Your task to perform on an android device: Open the Play Movies app and select the watchlist tab. Image 0: 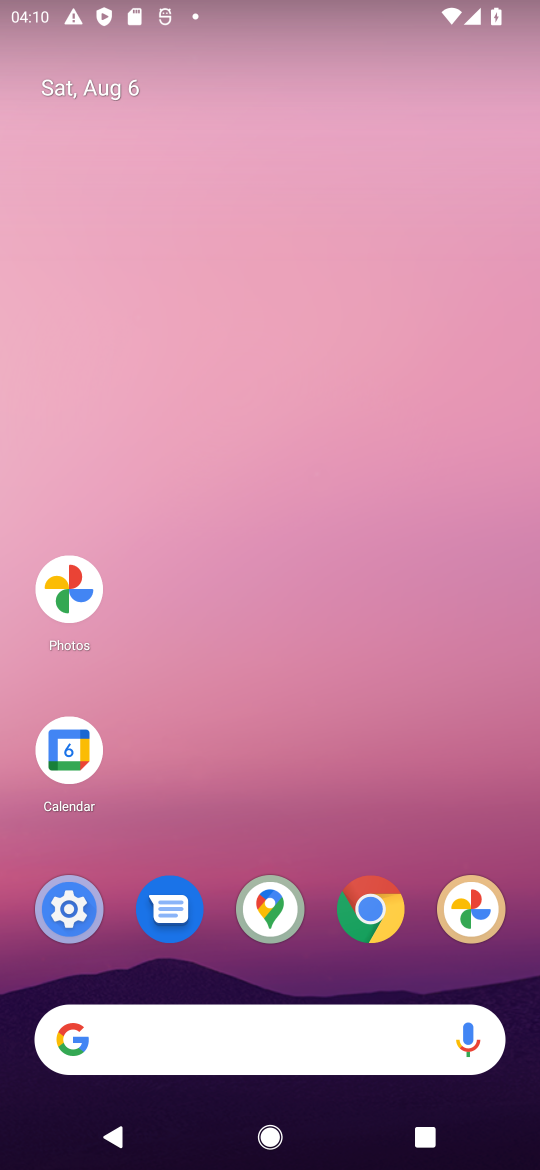
Step 0: drag from (243, 832) to (234, 74)
Your task to perform on an android device: Open the Play Movies app and select the watchlist tab. Image 1: 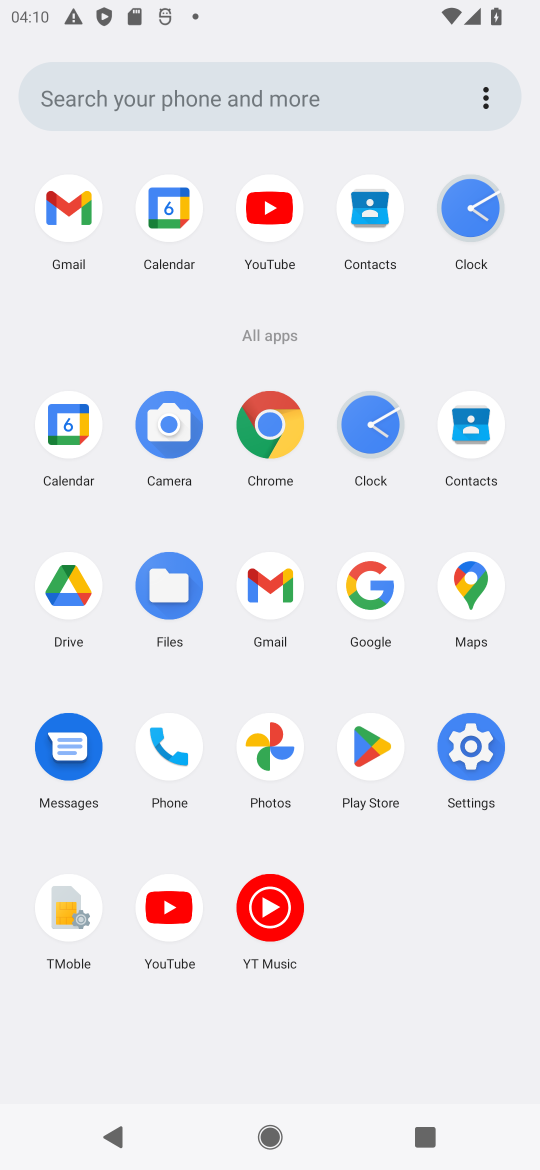
Step 1: drag from (376, 316) to (395, 753)
Your task to perform on an android device: Open the Play Movies app and select the watchlist tab. Image 2: 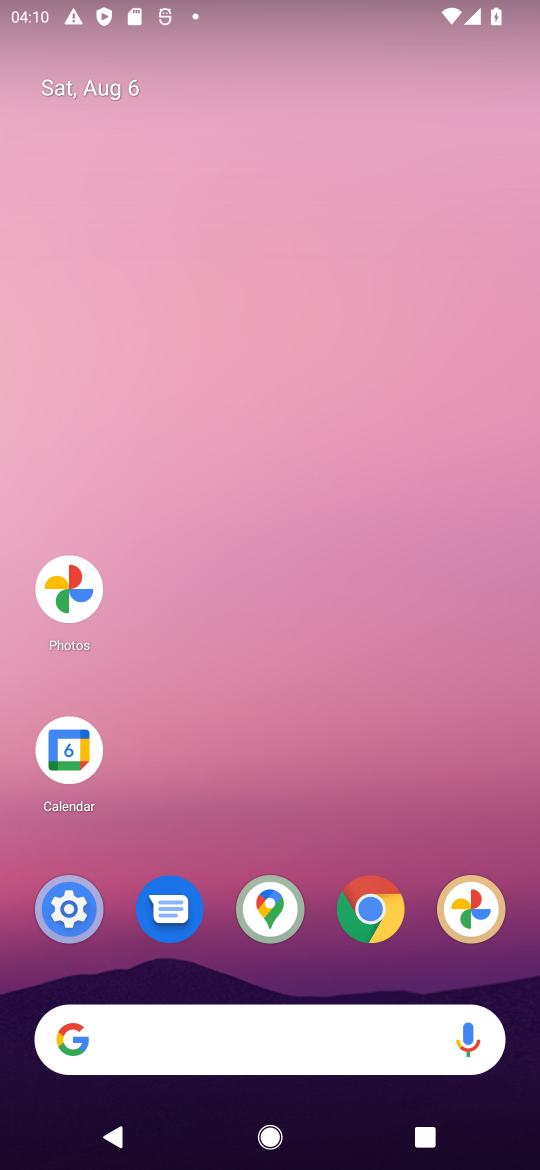
Step 2: drag from (295, 814) to (212, 283)
Your task to perform on an android device: Open the Play Movies app and select the watchlist tab. Image 3: 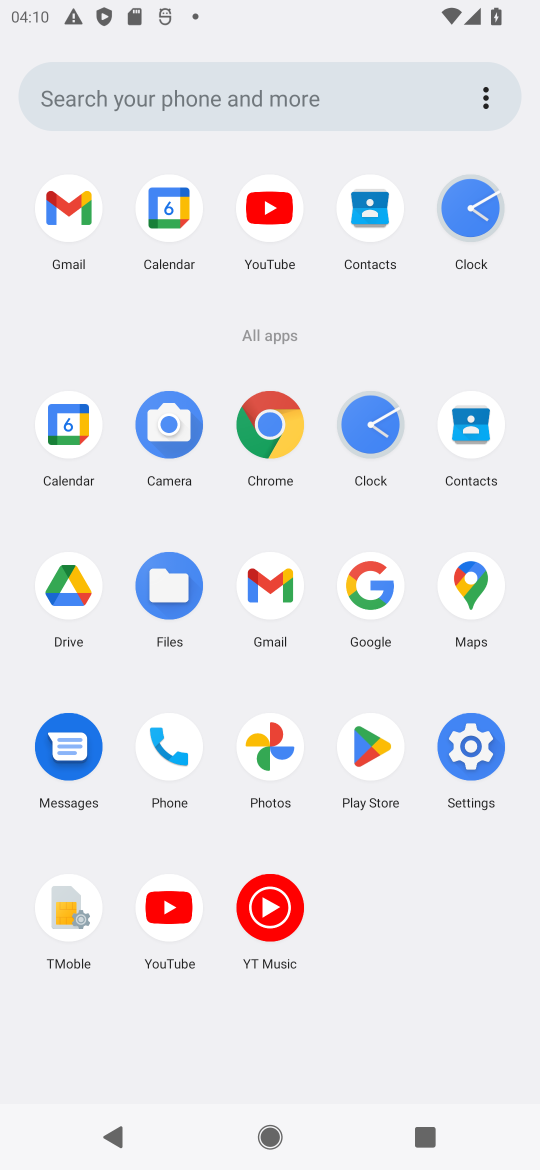
Step 3: click (376, 736)
Your task to perform on an android device: Open the Play Movies app and select the watchlist tab. Image 4: 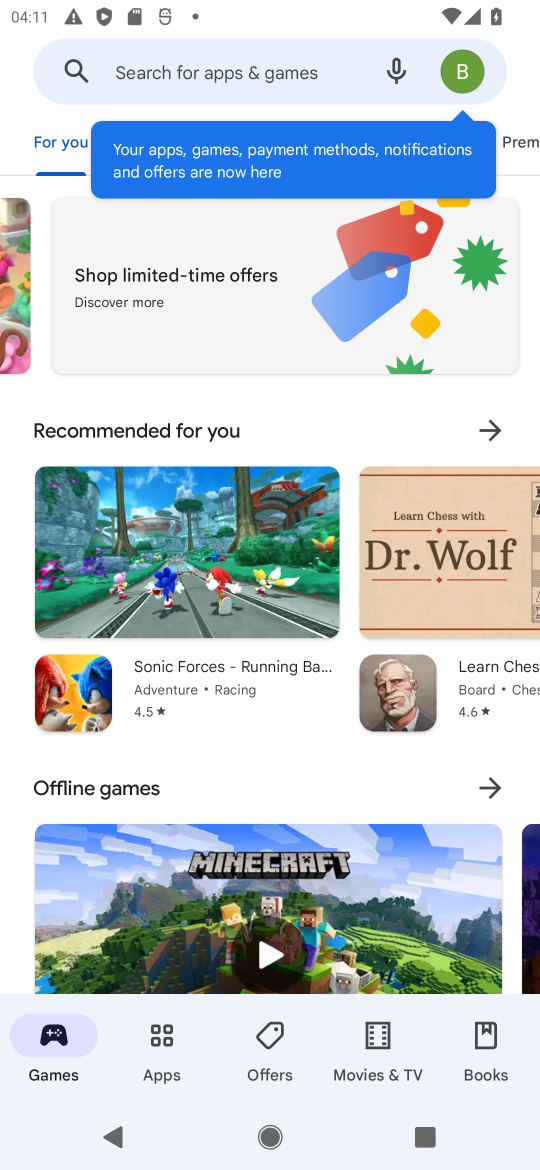
Step 4: click (153, 63)
Your task to perform on an android device: Open the Play Movies app and select the watchlist tab. Image 5: 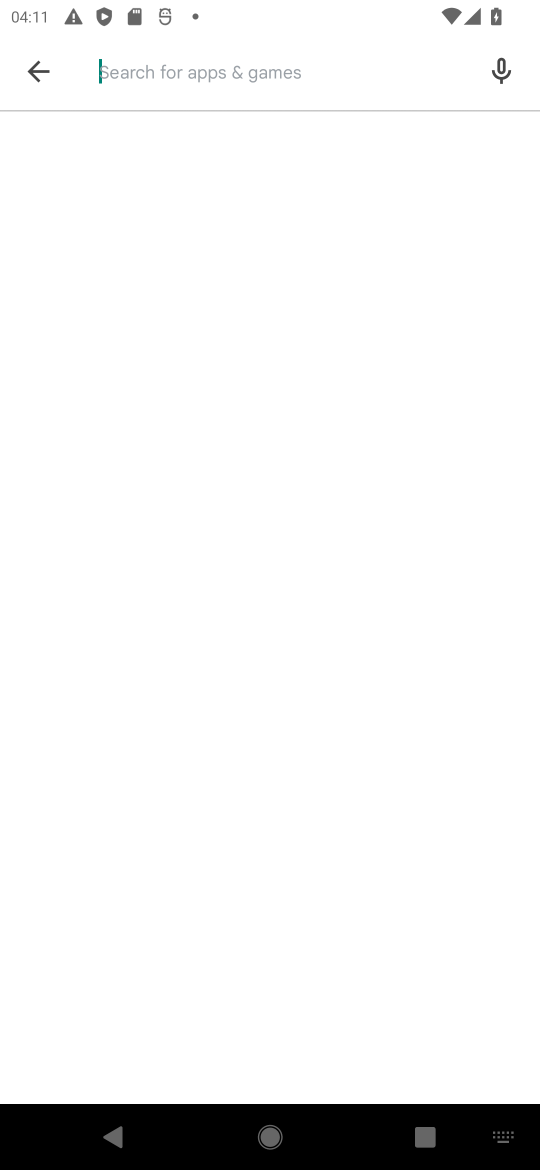
Step 5: type "play movie aap"
Your task to perform on an android device: Open the Play Movies app and select the watchlist tab. Image 6: 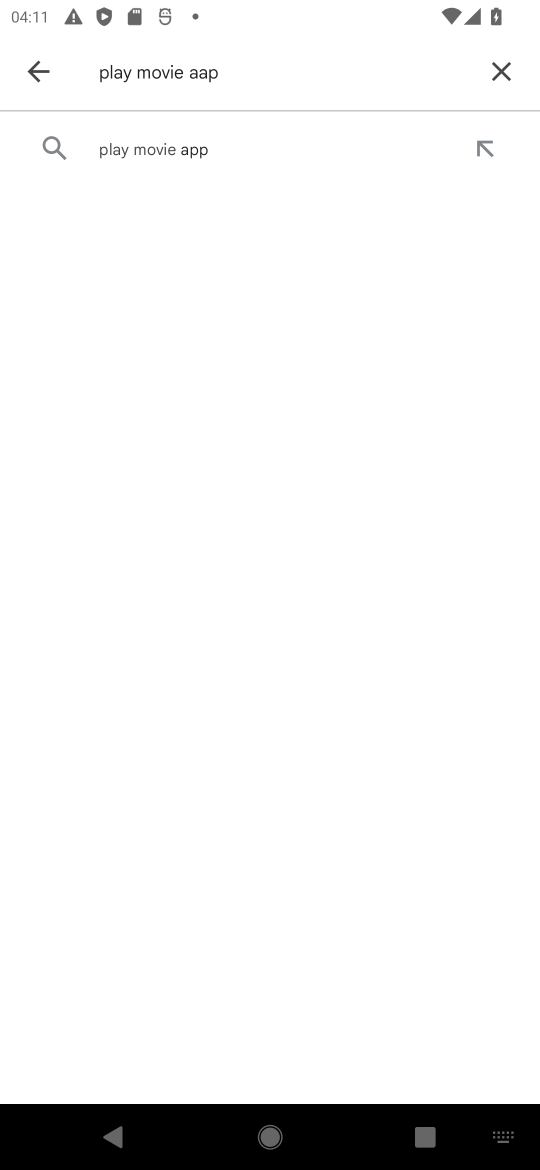
Step 6: click (160, 143)
Your task to perform on an android device: Open the Play Movies app and select the watchlist tab. Image 7: 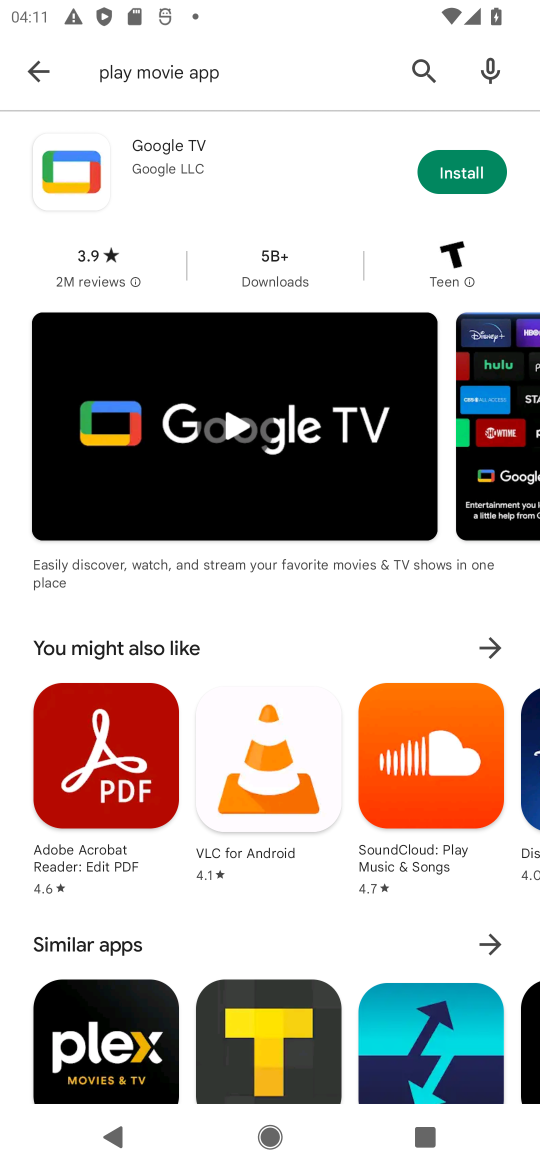
Step 7: task complete